Your task to perform on an android device: turn off data saver in the chrome app Image 0: 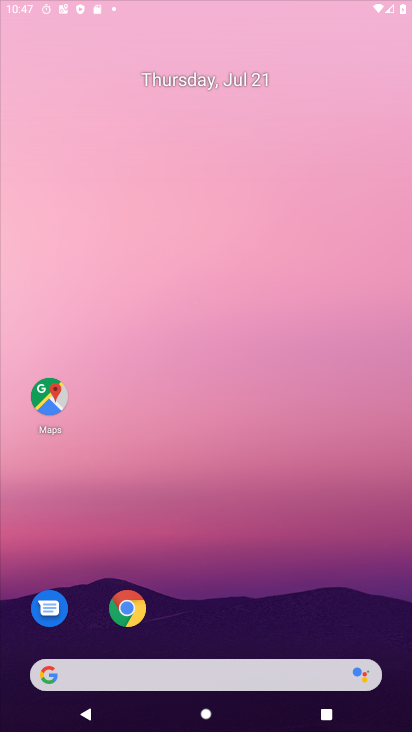
Step 0: click (152, 131)
Your task to perform on an android device: turn off data saver in the chrome app Image 1: 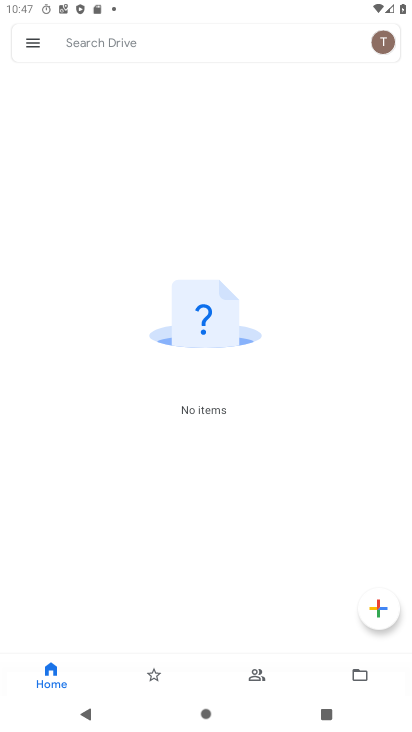
Step 1: press home button
Your task to perform on an android device: turn off data saver in the chrome app Image 2: 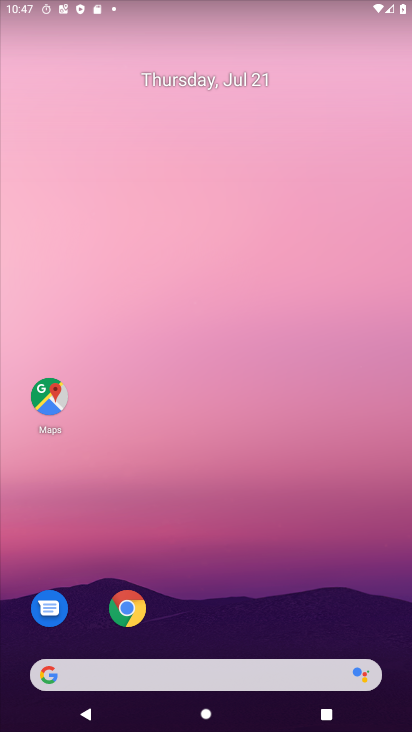
Step 2: click (122, 606)
Your task to perform on an android device: turn off data saver in the chrome app Image 3: 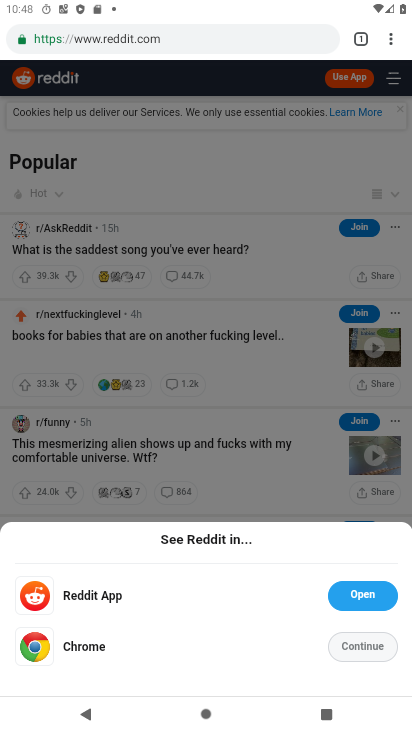
Step 3: click (390, 44)
Your task to perform on an android device: turn off data saver in the chrome app Image 4: 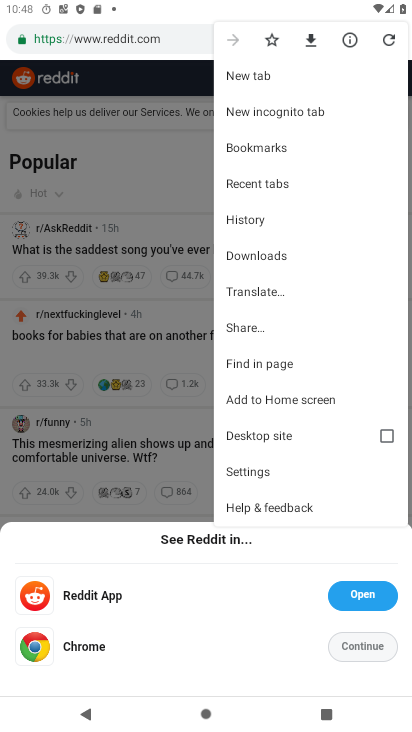
Step 4: click (252, 468)
Your task to perform on an android device: turn off data saver in the chrome app Image 5: 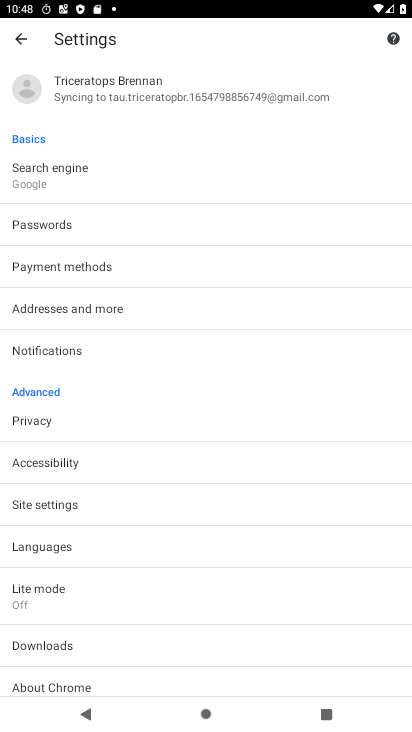
Step 5: click (21, 594)
Your task to perform on an android device: turn off data saver in the chrome app Image 6: 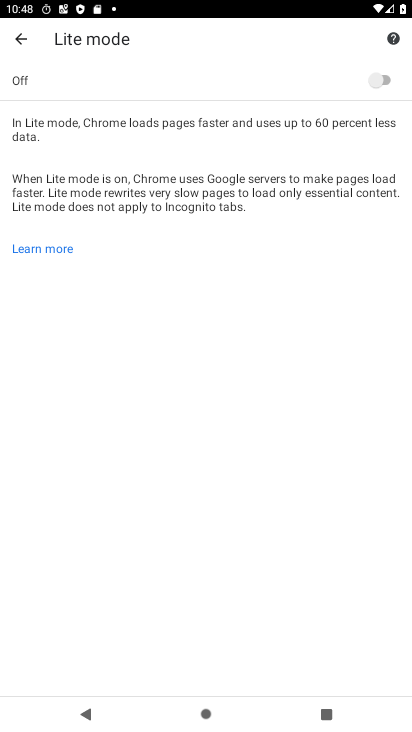
Step 6: task complete